Your task to perform on an android device: stop showing notifications on the lock screen Image 0: 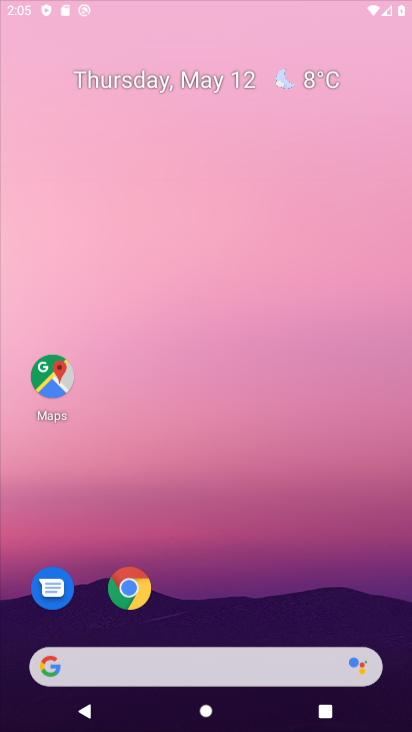
Step 0: click (257, 166)
Your task to perform on an android device: stop showing notifications on the lock screen Image 1: 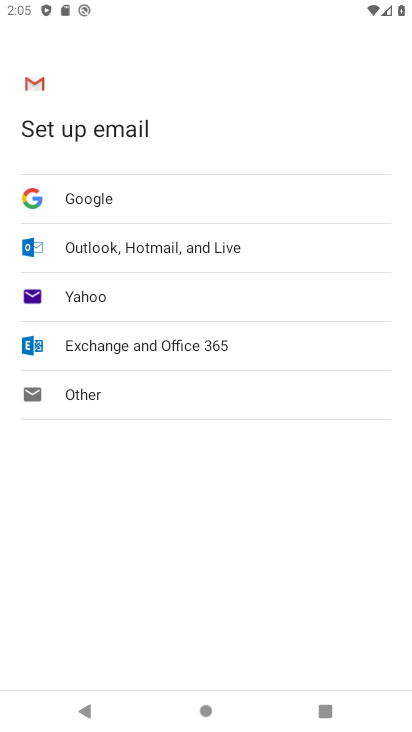
Step 1: press home button
Your task to perform on an android device: stop showing notifications on the lock screen Image 2: 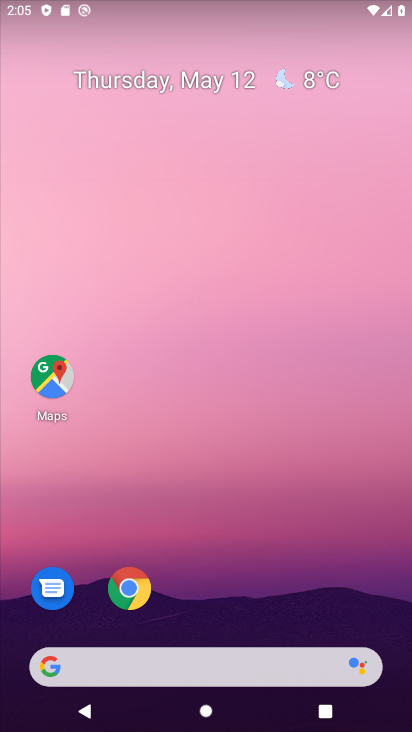
Step 2: drag from (231, 598) to (250, 217)
Your task to perform on an android device: stop showing notifications on the lock screen Image 3: 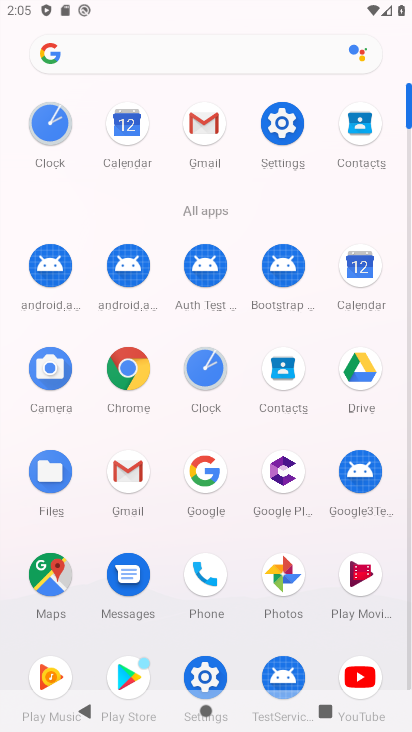
Step 3: click (280, 139)
Your task to perform on an android device: stop showing notifications on the lock screen Image 4: 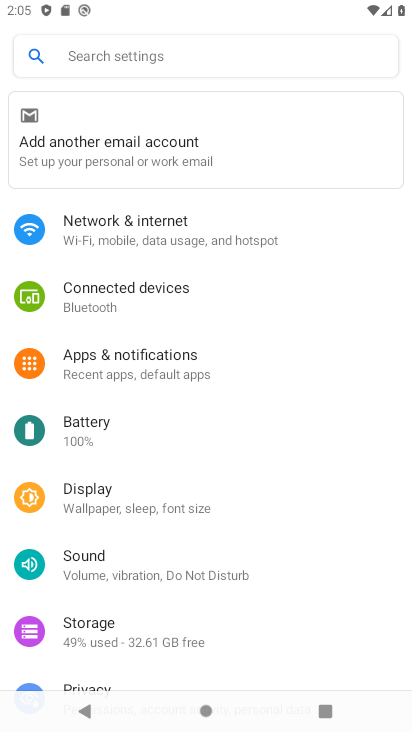
Step 4: drag from (110, 628) to (113, 531)
Your task to perform on an android device: stop showing notifications on the lock screen Image 5: 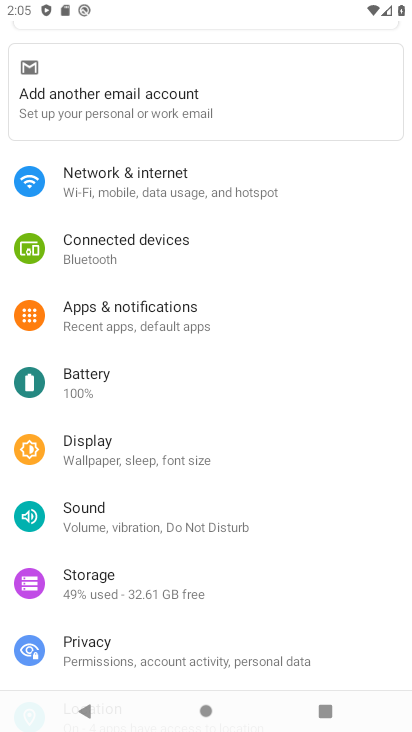
Step 5: click (140, 330)
Your task to perform on an android device: stop showing notifications on the lock screen Image 6: 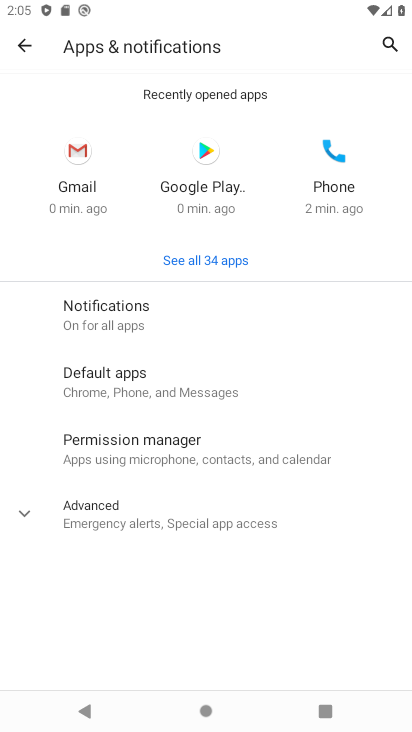
Step 6: click (234, 331)
Your task to perform on an android device: stop showing notifications on the lock screen Image 7: 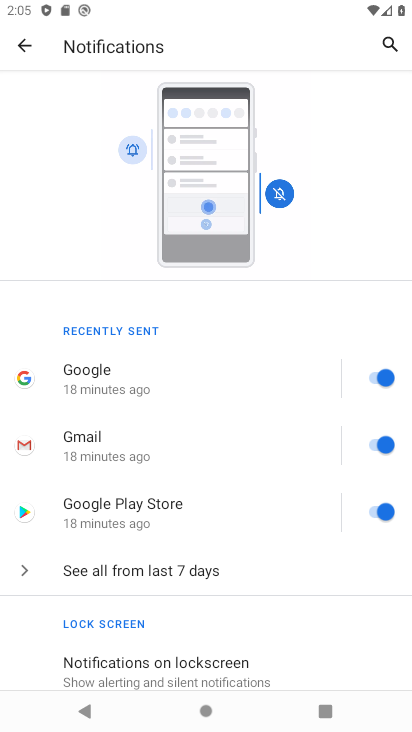
Step 7: click (206, 658)
Your task to perform on an android device: stop showing notifications on the lock screen Image 8: 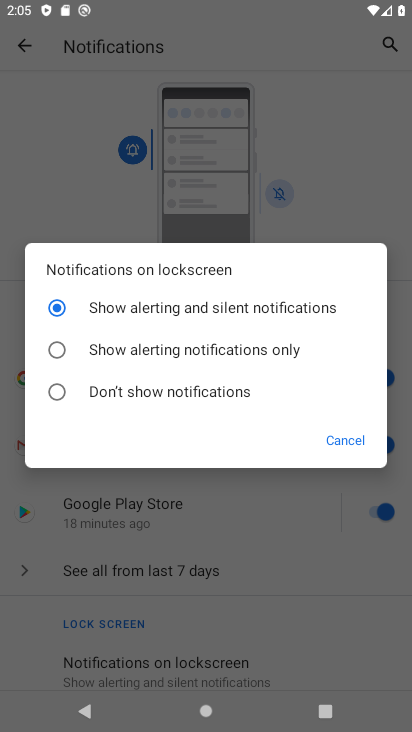
Step 8: click (212, 400)
Your task to perform on an android device: stop showing notifications on the lock screen Image 9: 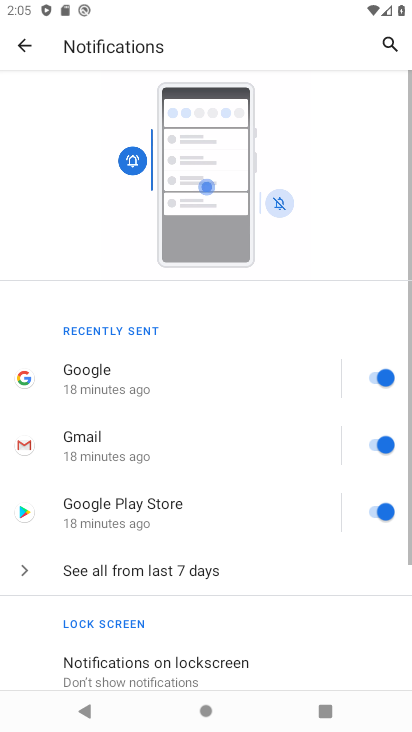
Step 9: task complete